Your task to perform on an android device: open app "Fetch Rewards" Image 0: 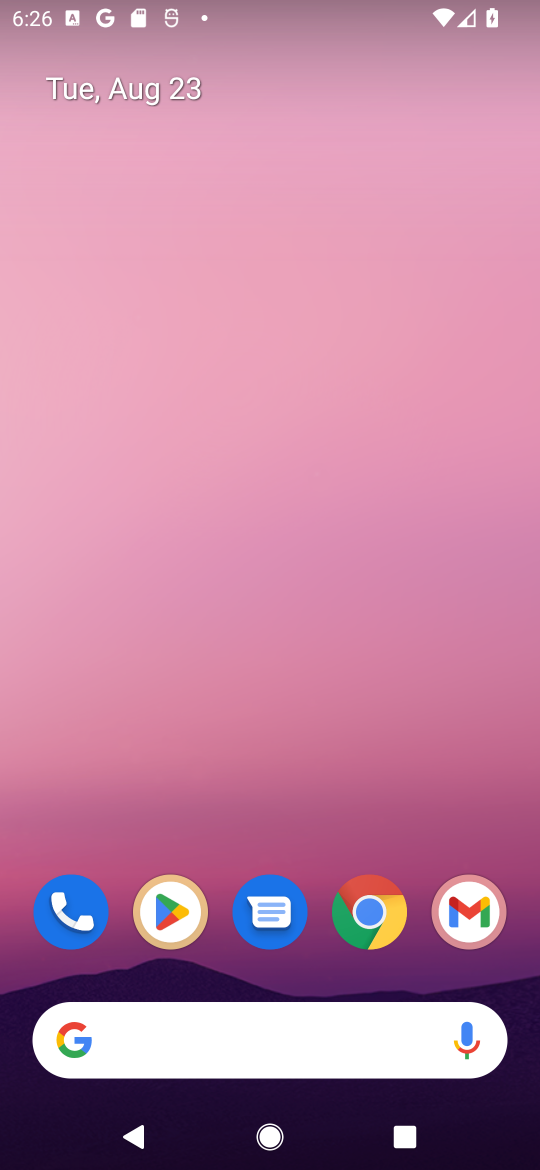
Step 0: drag from (250, 981) to (274, 411)
Your task to perform on an android device: open app "Fetch Rewards" Image 1: 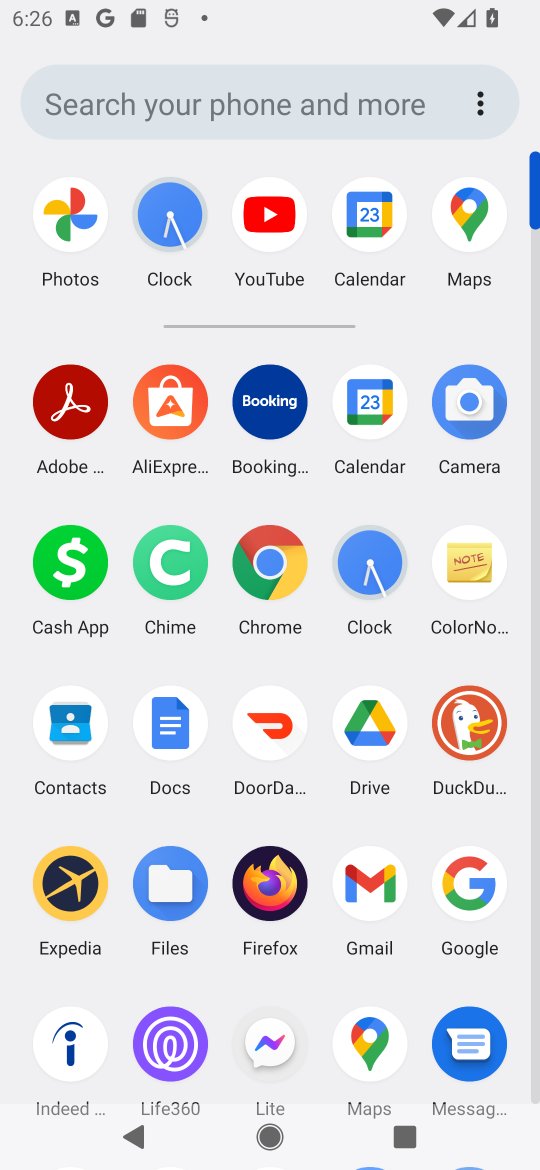
Step 1: drag from (231, 1013) to (329, 521)
Your task to perform on an android device: open app "Fetch Rewards" Image 2: 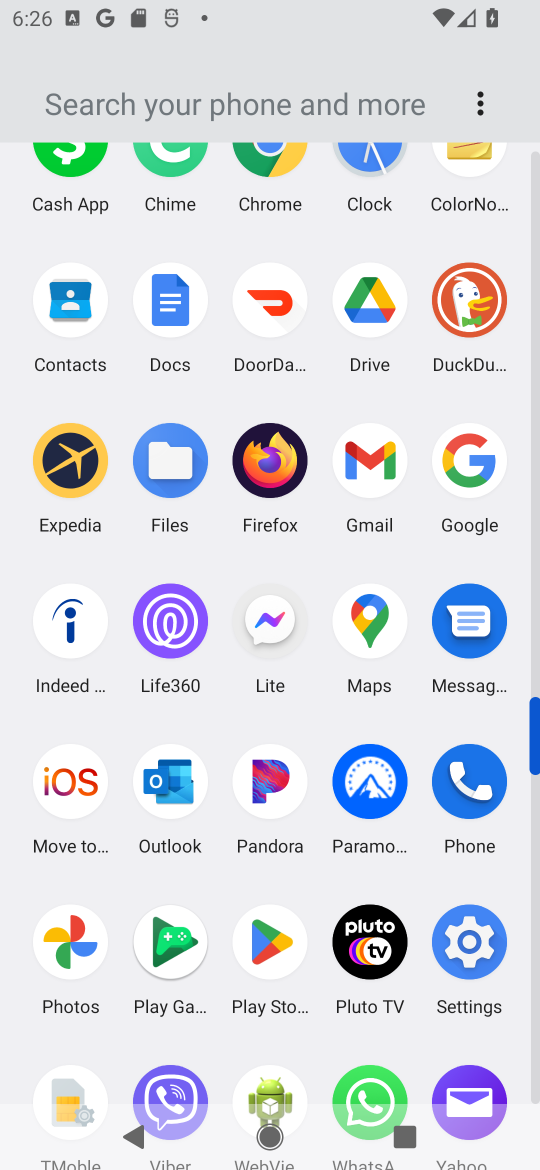
Step 2: click (278, 937)
Your task to perform on an android device: open app "Fetch Rewards" Image 3: 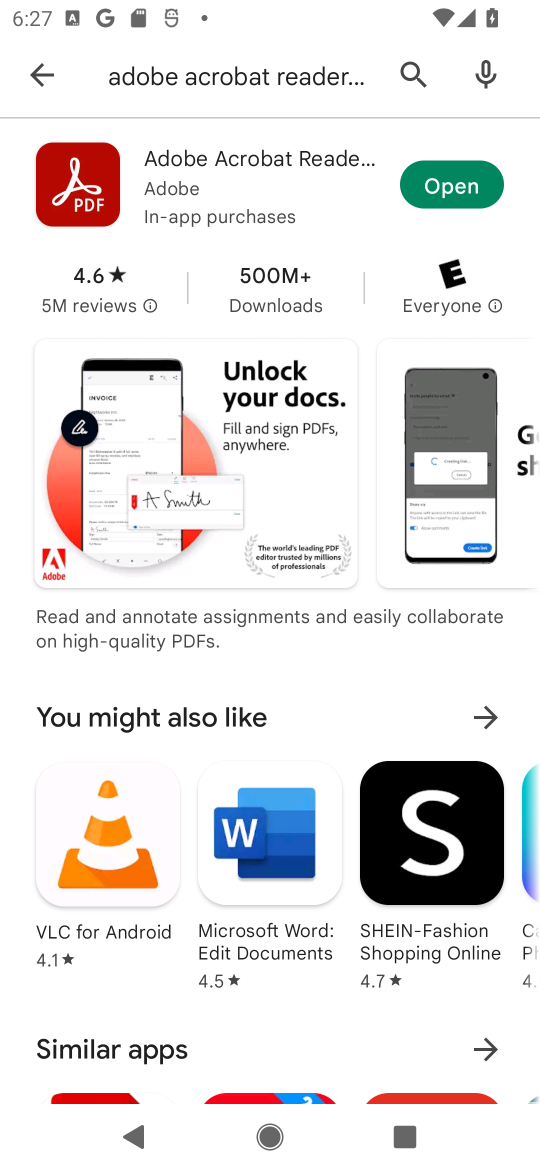
Step 3: click (24, 76)
Your task to perform on an android device: open app "Fetch Rewards" Image 4: 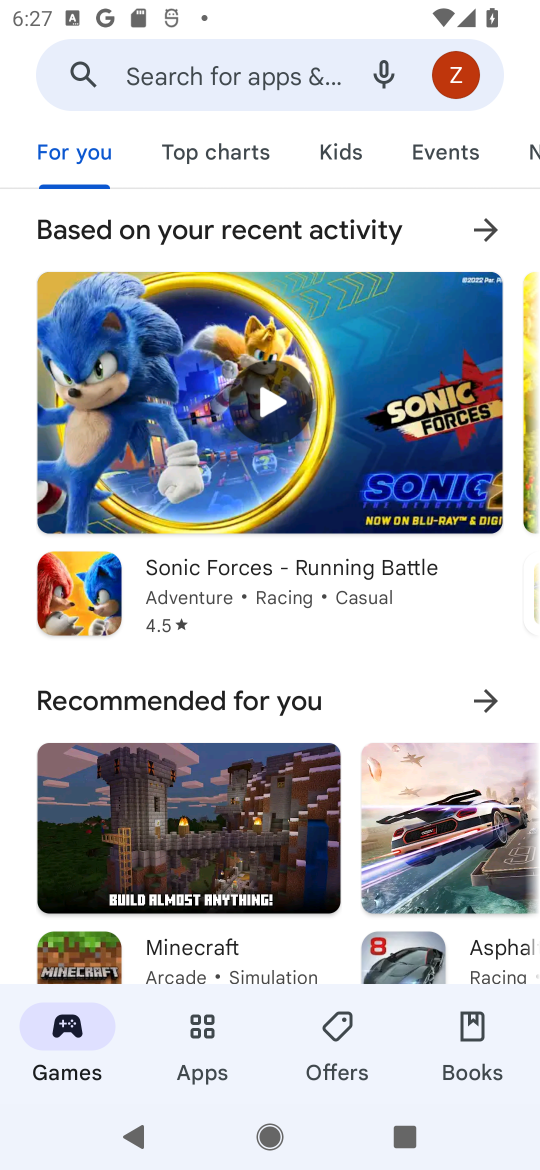
Step 4: click (130, 65)
Your task to perform on an android device: open app "Fetch Rewards" Image 5: 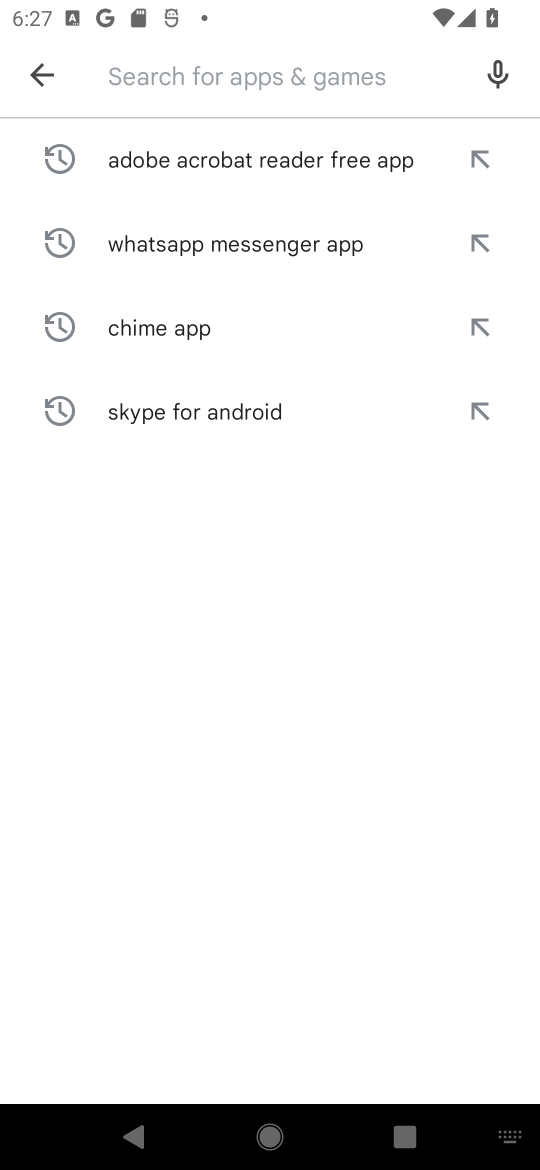
Step 5: type "Fetch Rewards "
Your task to perform on an android device: open app "Fetch Rewards" Image 6: 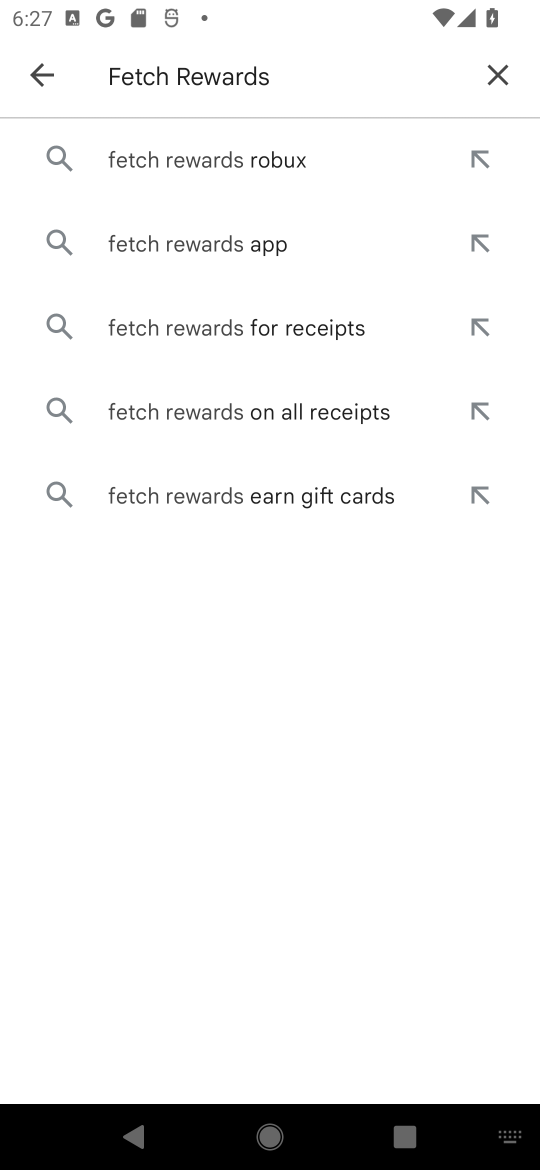
Step 6: click (239, 240)
Your task to perform on an android device: open app "Fetch Rewards" Image 7: 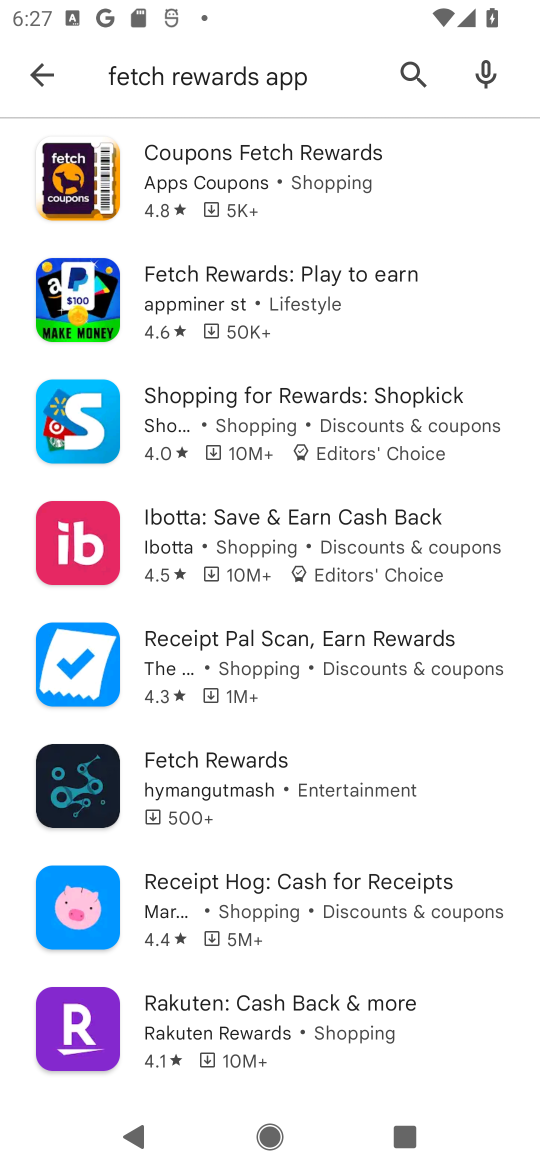
Step 7: click (236, 779)
Your task to perform on an android device: open app "Fetch Rewards" Image 8: 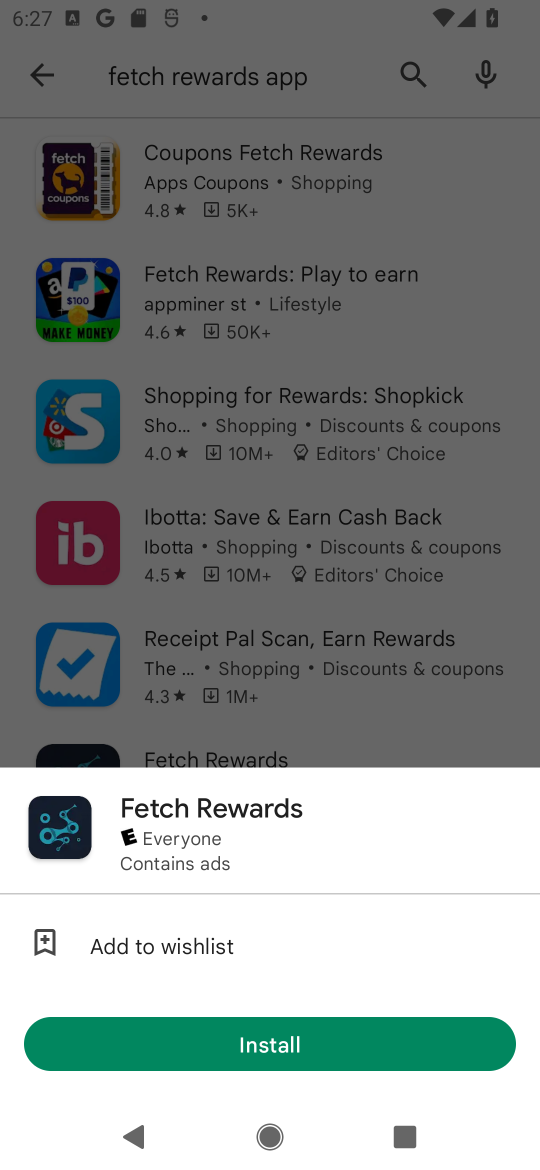
Step 8: click (312, 1040)
Your task to perform on an android device: open app "Fetch Rewards" Image 9: 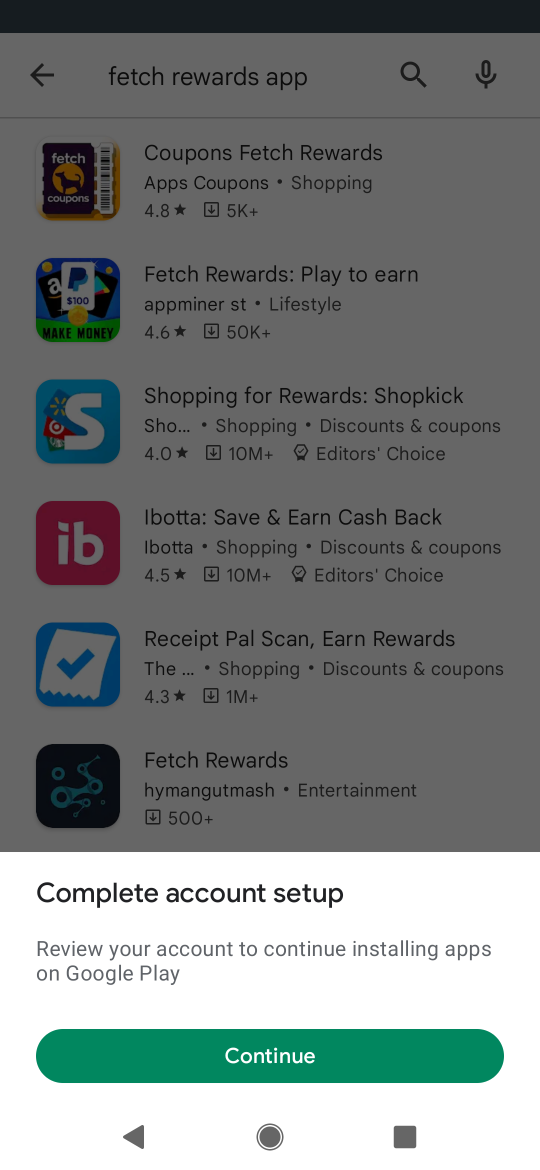
Step 9: click (378, 1057)
Your task to perform on an android device: open app "Fetch Rewards" Image 10: 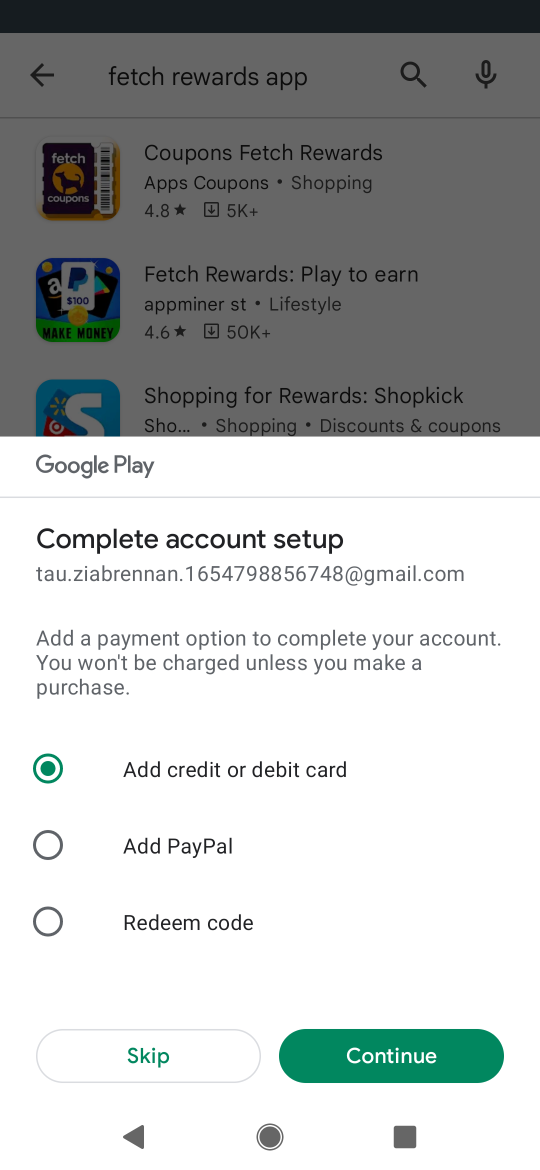
Step 10: task complete